Your task to perform on an android device: What's the weather today? Image 0: 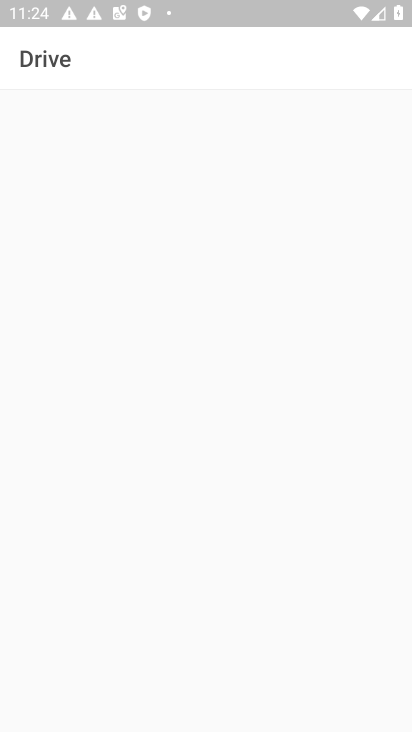
Step 0: press home button
Your task to perform on an android device: What's the weather today? Image 1: 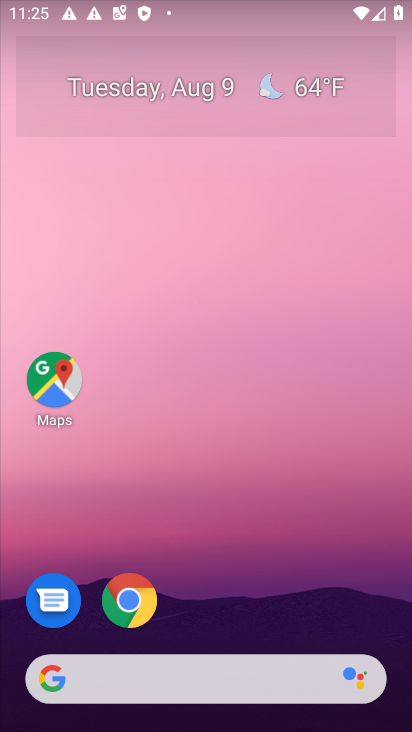
Step 1: click (115, 688)
Your task to perform on an android device: What's the weather today? Image 2: 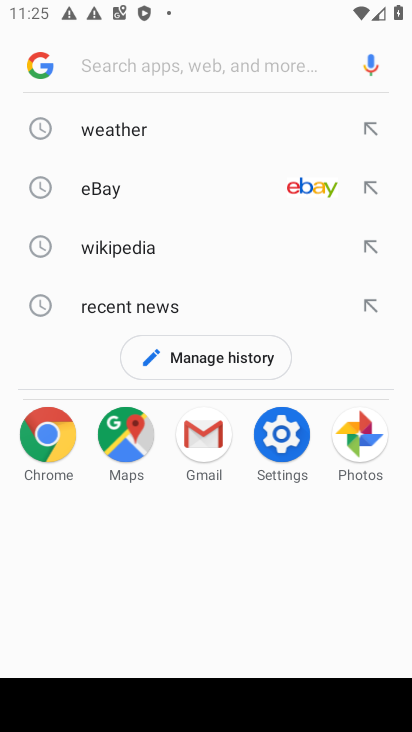
Step 2: type "What's the weather today?"
Your task to perform on an android device: What's the weather today? Image 3: 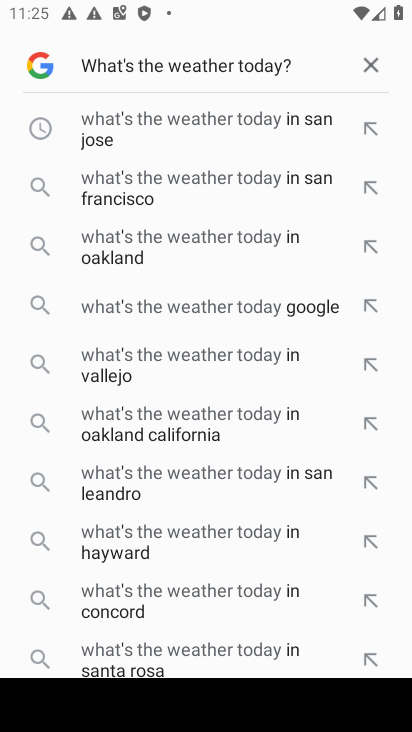
Step 3: type ""
Your task to perform on an android device: What's the weather today? Image 4: 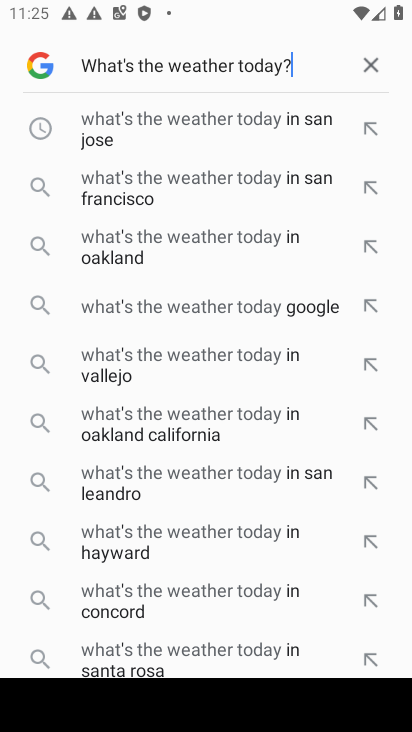
Step 4: type ""
Your task to perform on an android device: What's the weather today? Image 5: 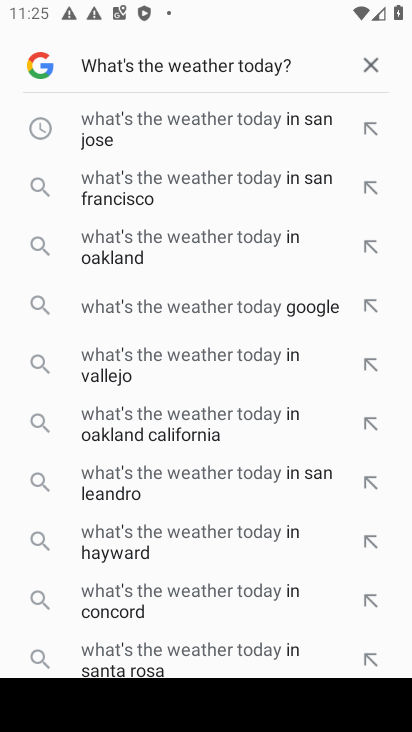
Step 5: task complete